Your task to perform on an android device: Open the calendar and show me this week's events Image 0: 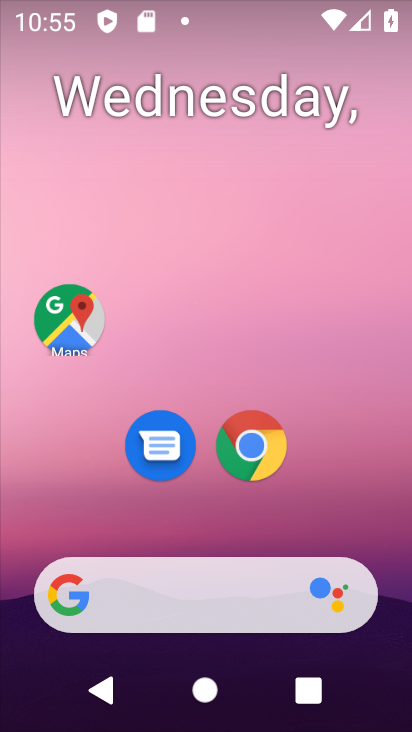
Step 0: drag from (179, 559) to (237, 269)
Your task to perform on an android device: Open the calendar and show me this week's events Image 1: 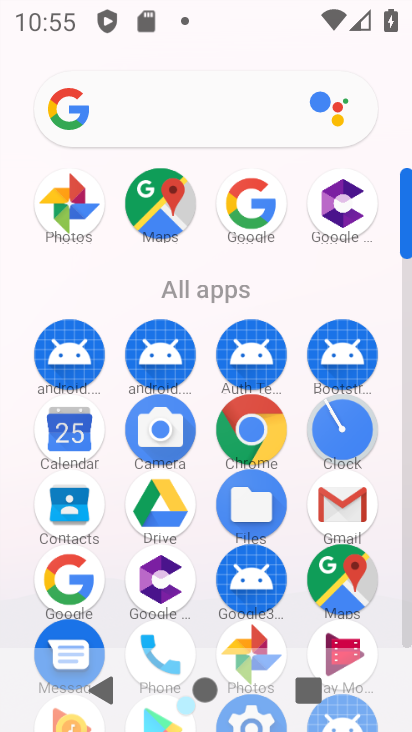
Step 1: click (50, 430)
Your task to perform on an android device: Open the calendar and show me this week's events Image 2: 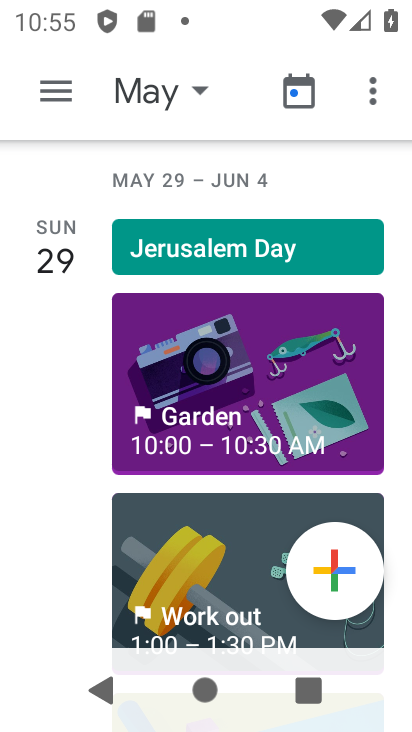
Step 2: task complete